Your task to perform on an android device: open the mobile data screen to see how much data has been used Image 0: 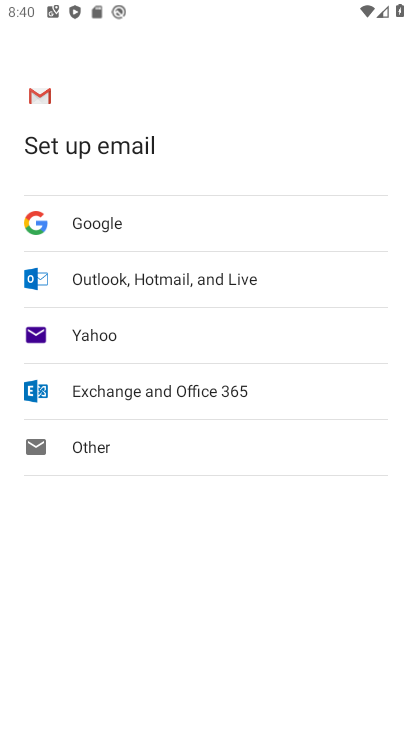
Step 0: press home button
Your task to perform on an android device: open the mobile data screen to see how much data has been used Image 1: 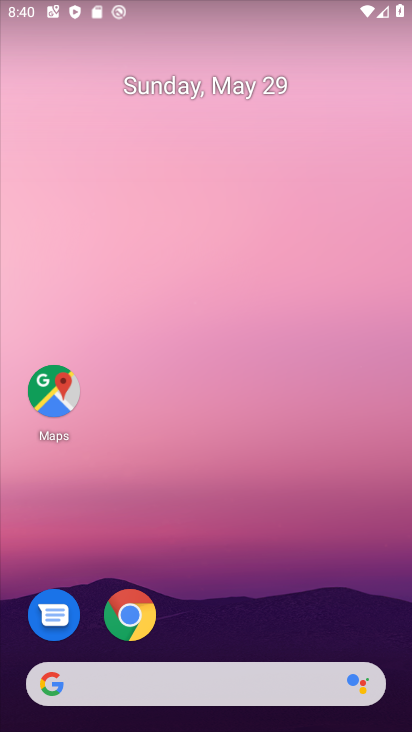
Step 1: drag from (223, 594) to (261, 10)
Your task to perform on an android device: open the mobile data screen to see how much data has been used Image 2: 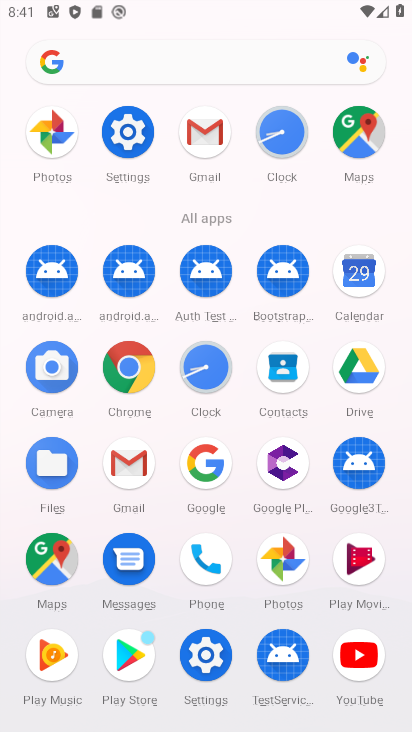
Step 2: click (126, 132)
Your task to perform on an android device: open the mobile data screen to see how much data has been used Image 3: 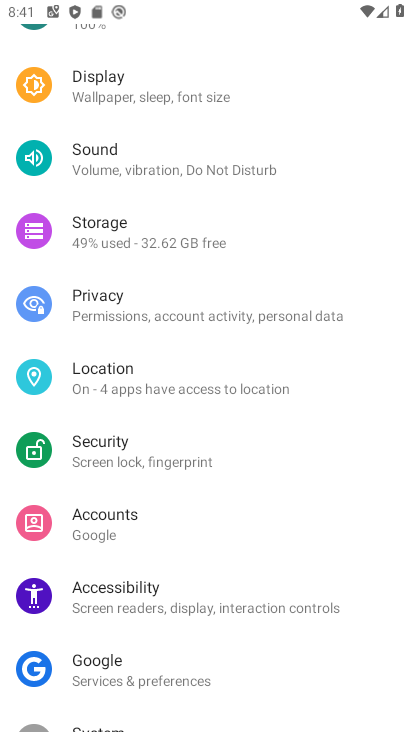
Step 3: drag from (144, 173) to (128, 633)
Your task to perform on an android device: open the mobile data screen to see how much data has been used Image 4: 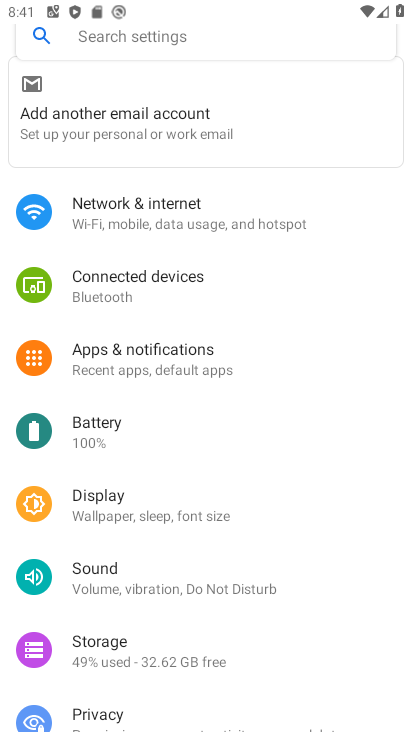
Step 4: click (156, 222)
Your task to perform on an android device: open the mobile data screen to see how much data has been used Image 5: 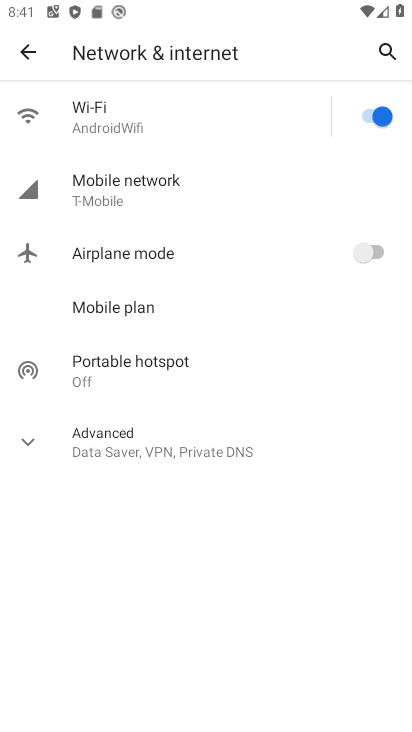
Step 5: click (127, 195)
Your task to perform on an android device: open the mobile data screen to see how much data has been used Image 6: 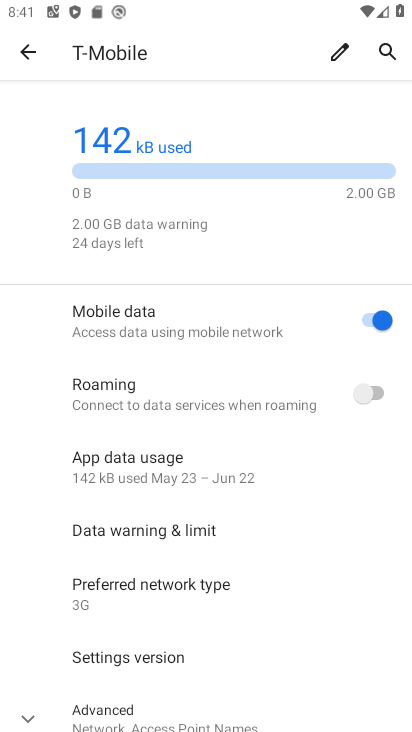
Step 6: click (140, 454)
Your task to perform on an android device: open the mobile data screen to see how much data has been used Image 7: 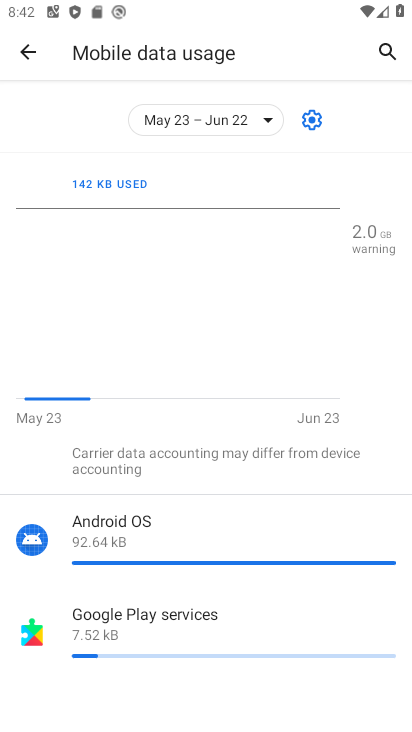
Step 7: task complete